Your task to perform on an android device: Open the web browser Image 0: 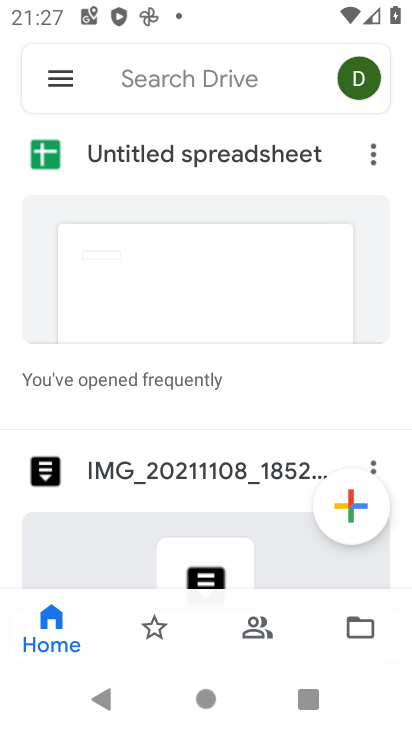
Step 0: press home button
Your task to perform on an android device: Open the web browser Image 1: 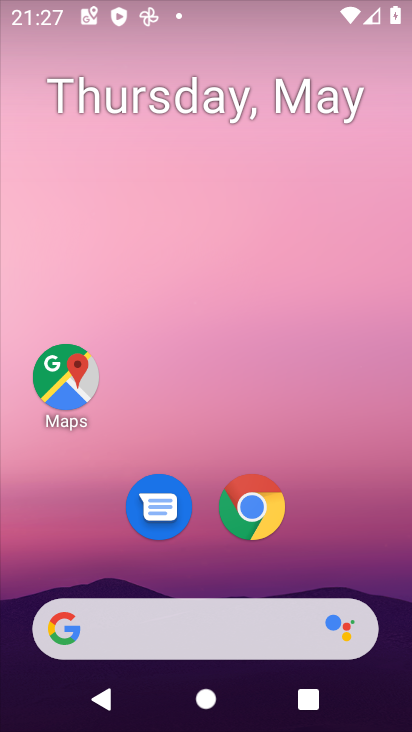
Step 1: drag from (235, 647) to (307, 53)
Your task to perform on an android device: Open the web browser Image 2: 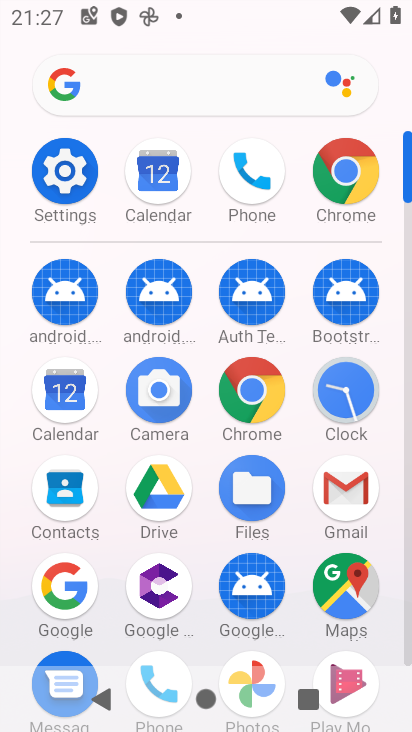
Step 2: click (324, 168)
Your task to perform on an android device: Open the web browser Image 3: 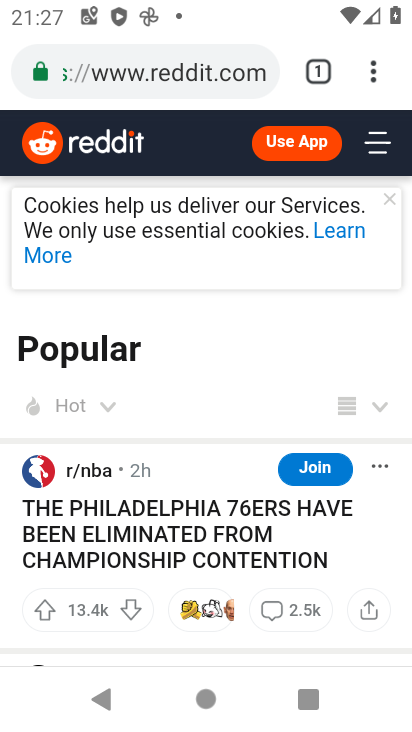
Step 3: click (166, 76)
Your task to perform on an android device: Open the web browser Image 4: 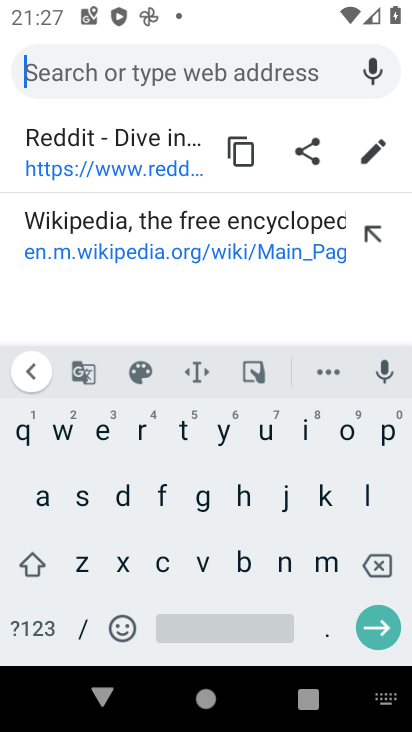
Step 4: task complete